Your task to perform on an android device: Go to Amazon Image 0: 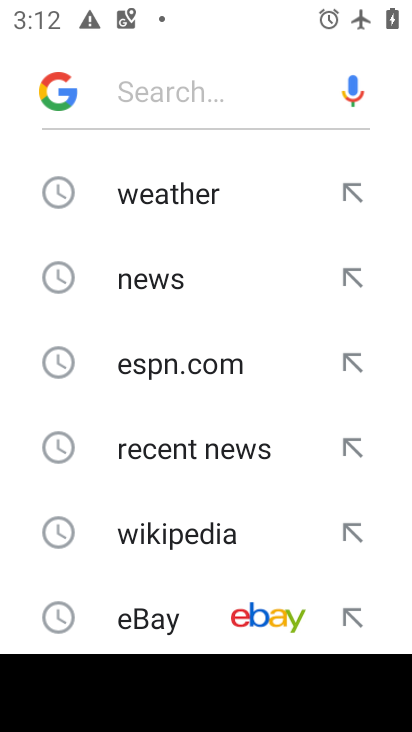
Step 0: press home button
Your task to perform on an android device: Go to Amazon Image 1: 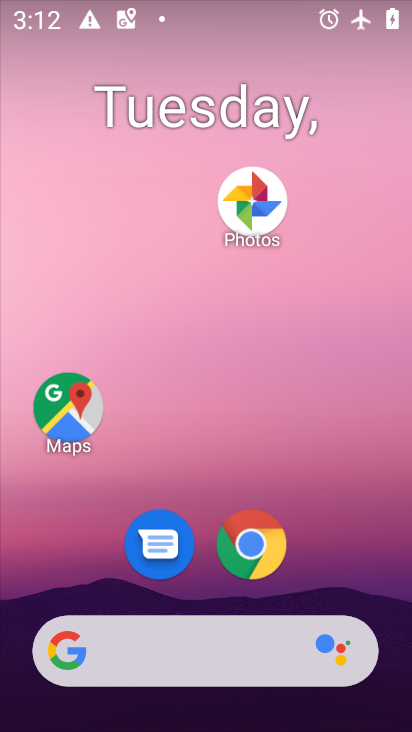
Step 1: drag from (328, 509) to (336, 3)
Your task to perform on an android device: Go to Amazon Image 2: 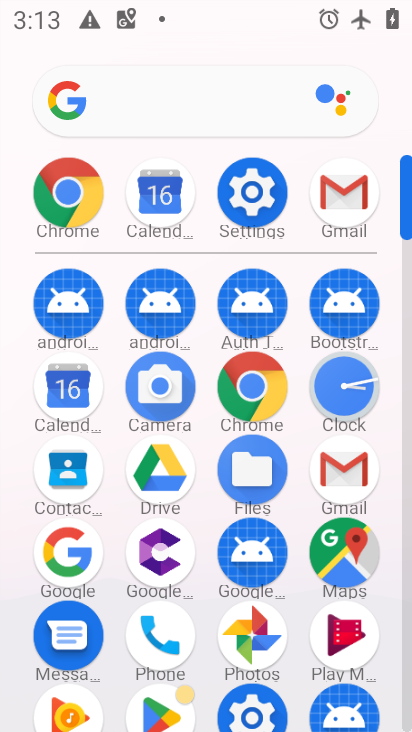
Step 2: click (249, 383)
Your task to perform on an android device: Go to Amazon Image 3: 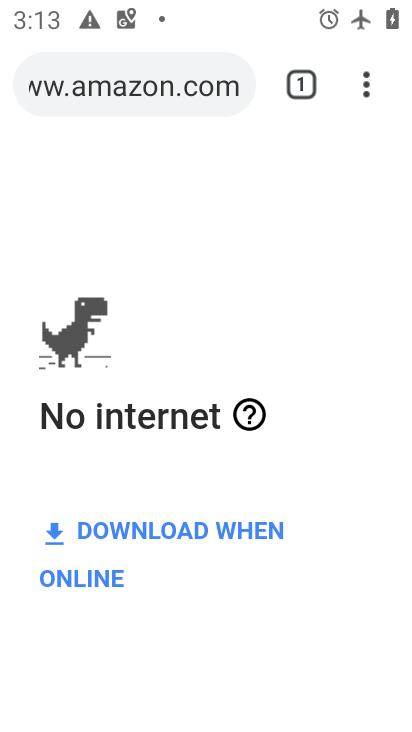
Step 3: task complete